Your task to perform on an android device: Find coffee shops on Maps Image 0: 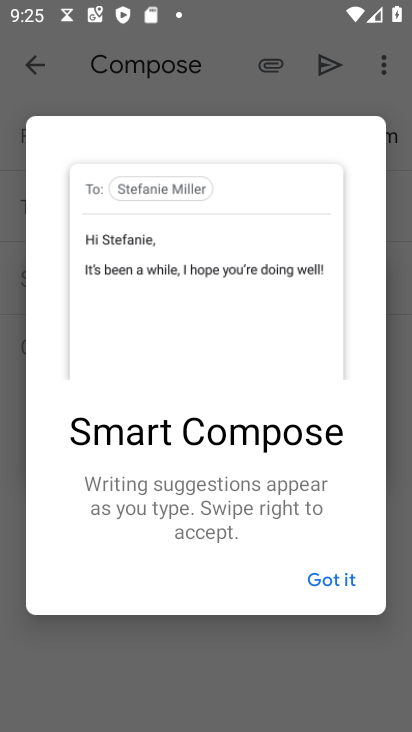
Step 0: press home button
Your task to perform on an android device: Find coffee shops on Maps Image 1: 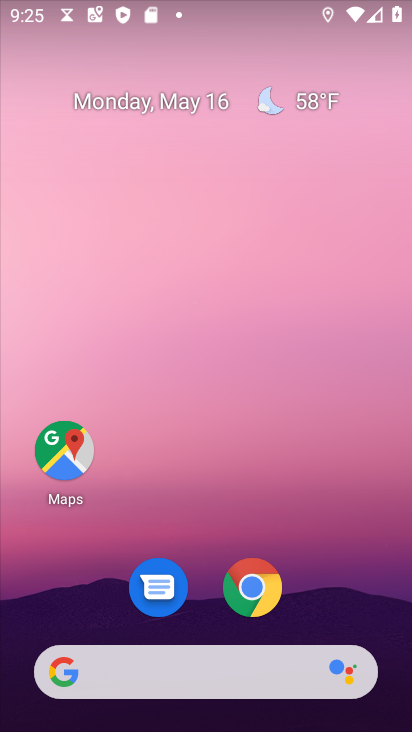
Step 1: drag from (356, 616) to (314, 149)
Your task to perform on an android device: Find coffee shops on Maps Image 2: 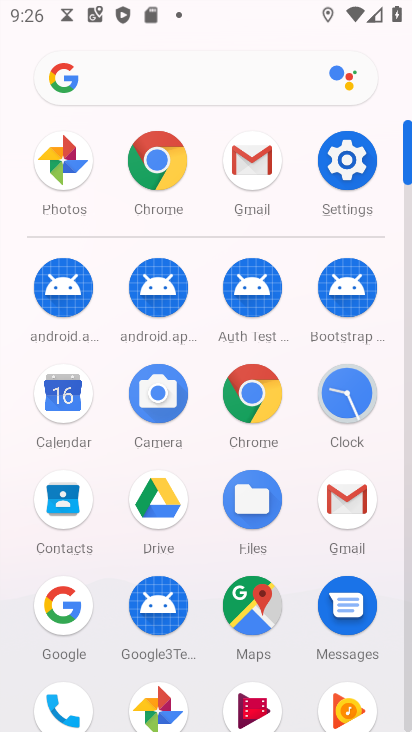
Step 2: click (239, 590)
Your task to perform on an android device: Find coffee shops on Maps Image 3: 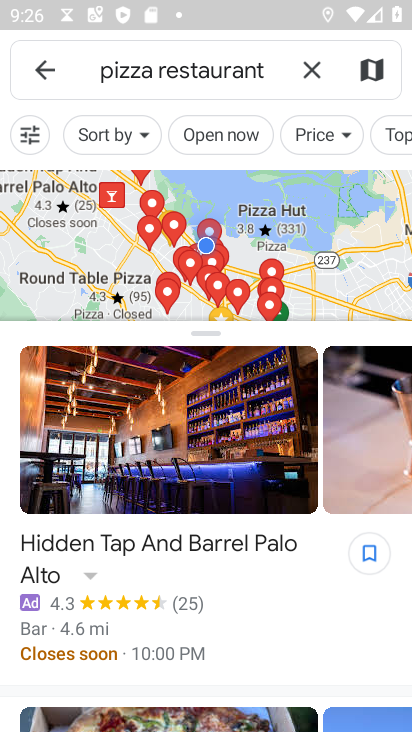
Step 3: click (319, 73)
Your task to perform on an android device: Find coffee shops on Maps Image 4: 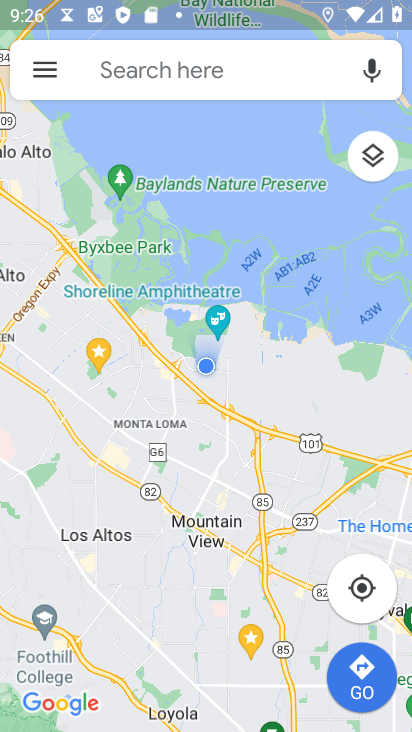
Step 4: click (225, 76)
Your task to perform on an android device: Find coffee shops on Maps Image 5: 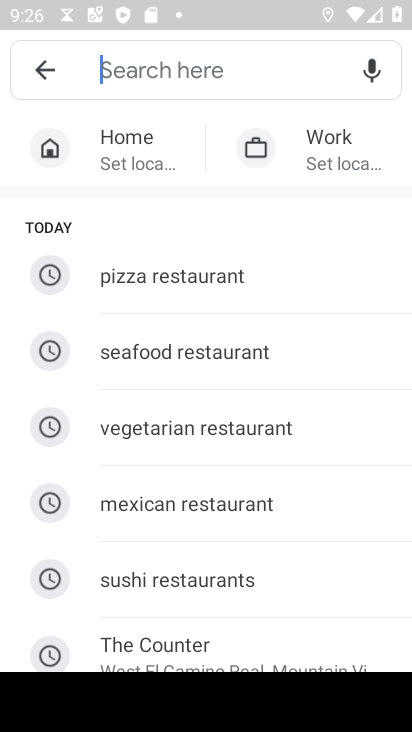
Step 5: drag from (297, 595) to (278, 321)
Your task to perform on an android device: Find coffee shops on Maps Image 6: 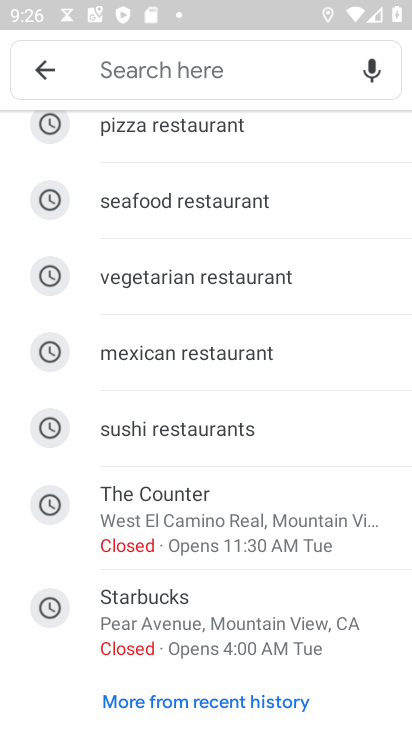
Step 6: click (231, 74)
Your task to perform on an android device: Find coffee shops on Maps Image 7: 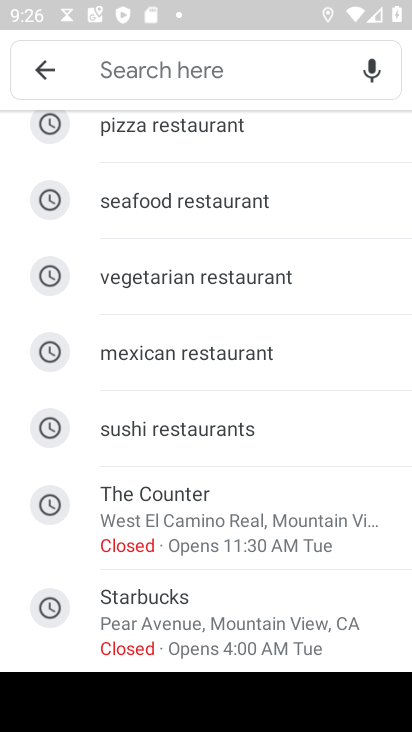
Step 7: click (231, 74)
Your task to perform on an android device: Find coffee shops on Maps Image 8: 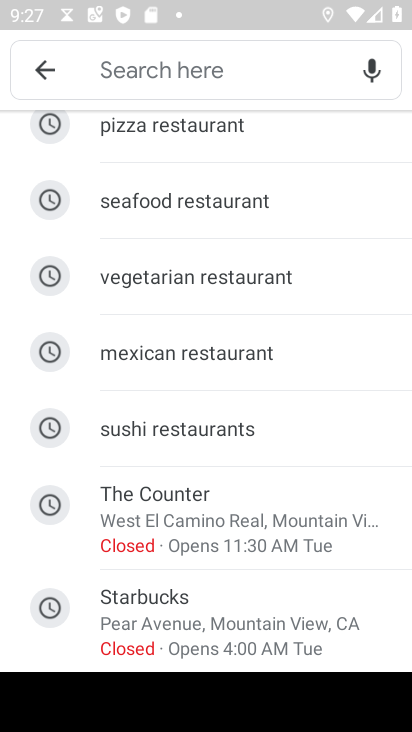
Step 8: type "coffee shops"
Your task to perform on an android device: Find coffee shops on Maps Image 9: 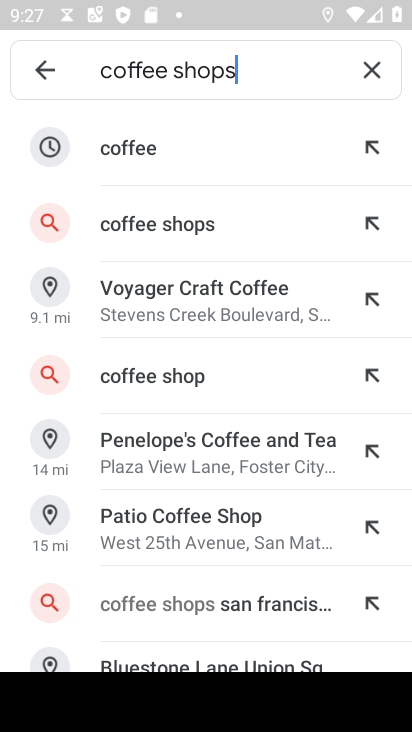
Step 9: click (193, 212)
Your task to perform on an android device: Find coffee shops on Maps Image 10: 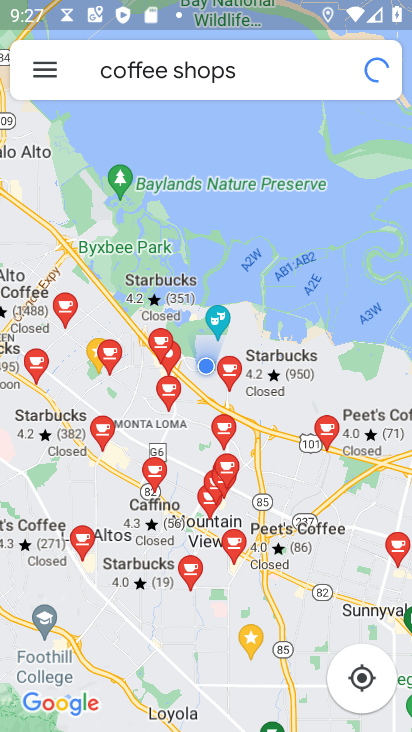
Step 10: task complete